Your task to perform on an android device: Do I have any events this weekend? Image 0: 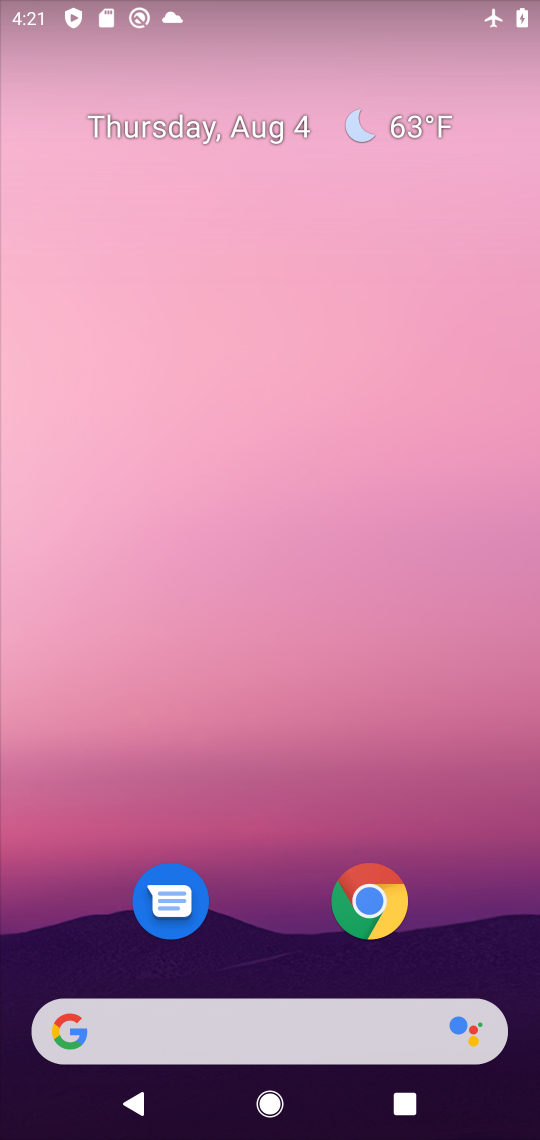
Step 0: drag from (252, 972) to (290, 6)
Your task to perform on an android device: Do I have any events this weekend? Image 1: 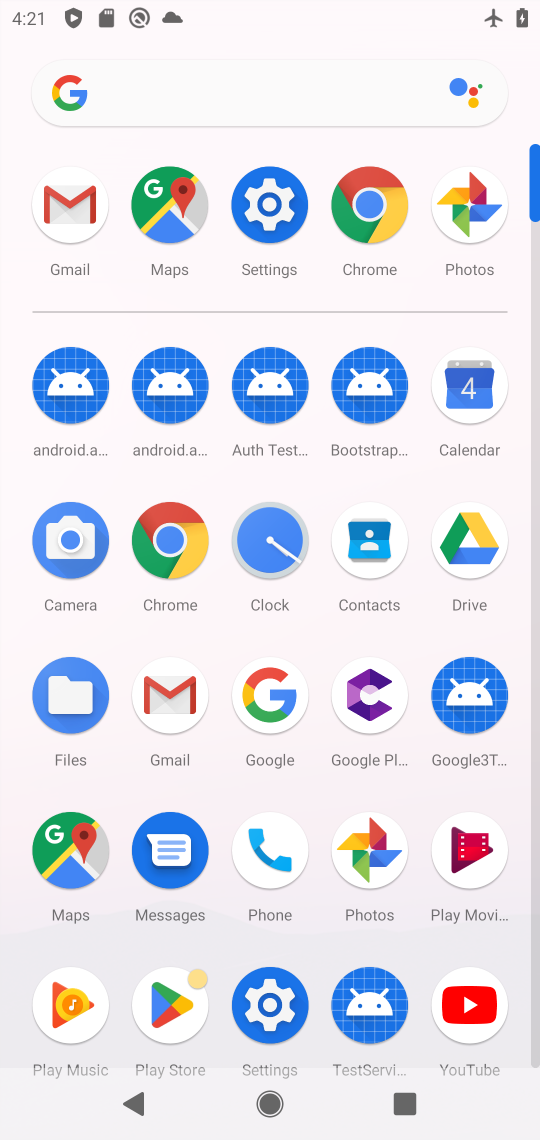
Step 1: click (461, 400)
Your task to perform on an android device: Do I have any events this weekend? Image 2: 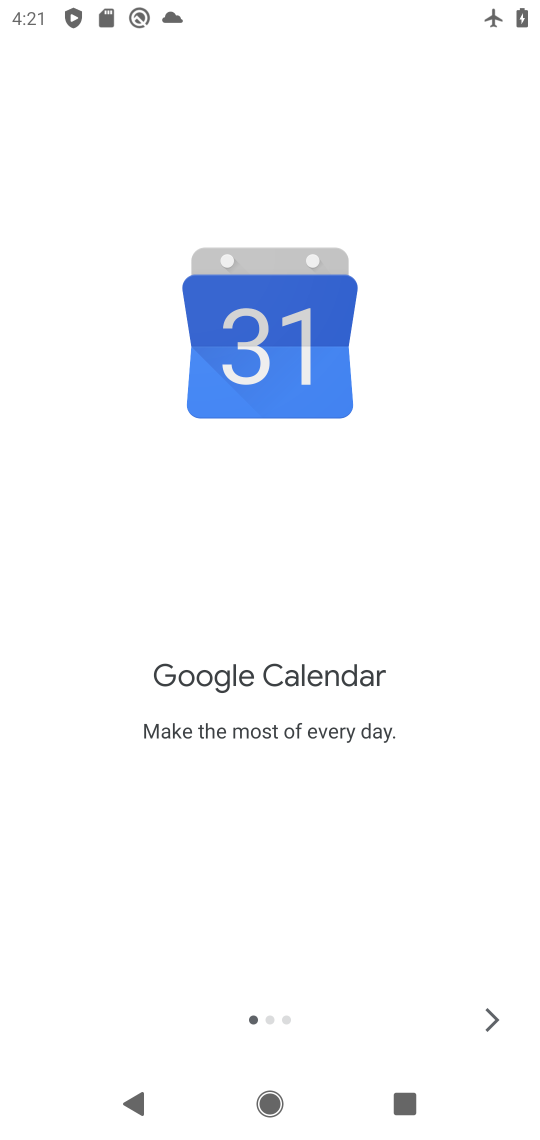
Step 2: click (495, 1017)
Your task to perform on an android device: Do I have any events this weekend? Image 3: 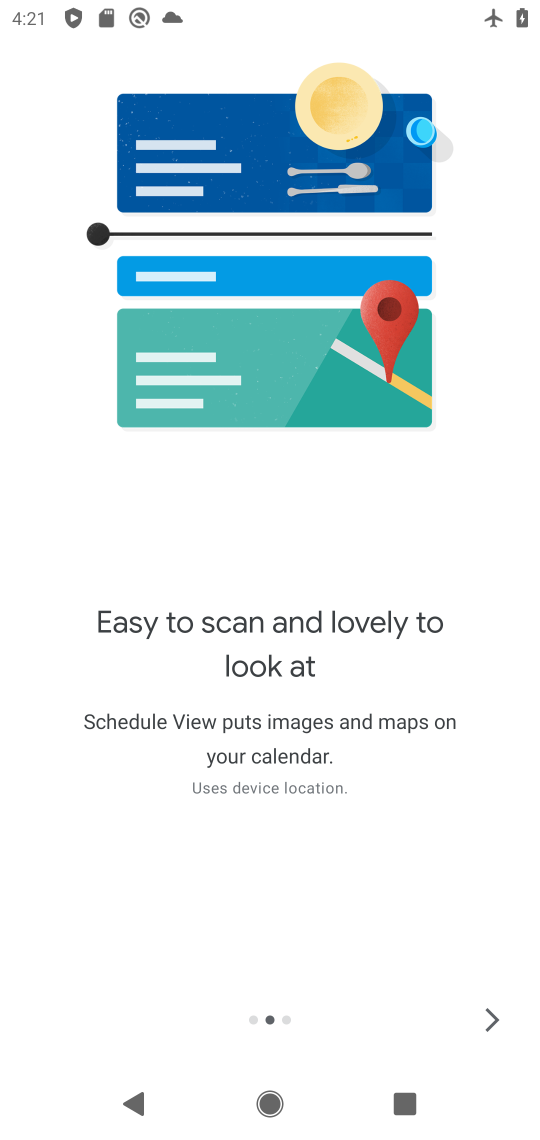
Step 3: click (495, 1017)
Your task to perform on an android device: Do I have any events this weekend? Image 4: 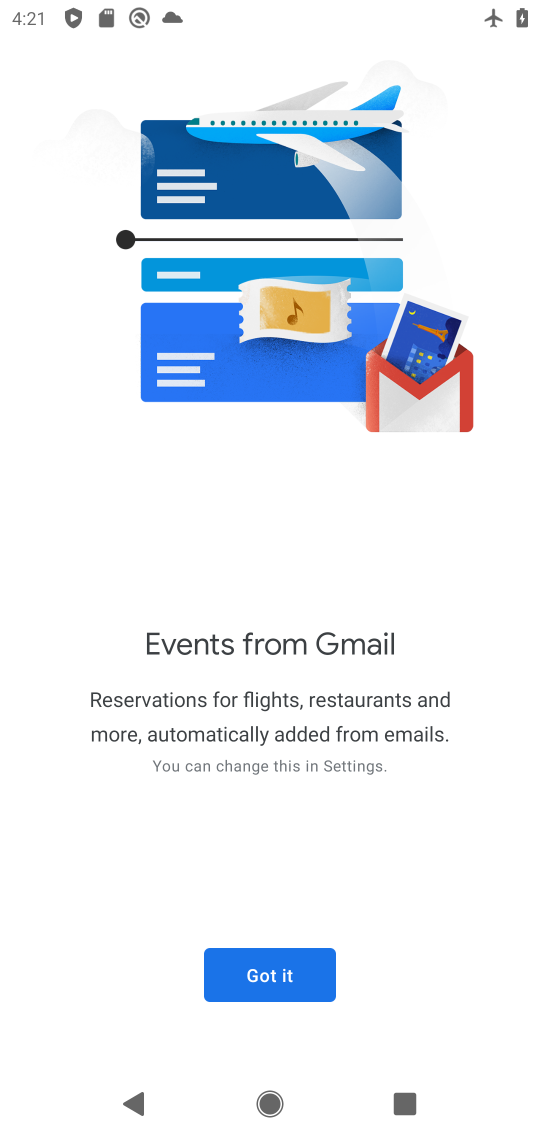
Step 4: click (271, 983)
Your task to perform on an android device: Do I have any events this weekend? Image 5: 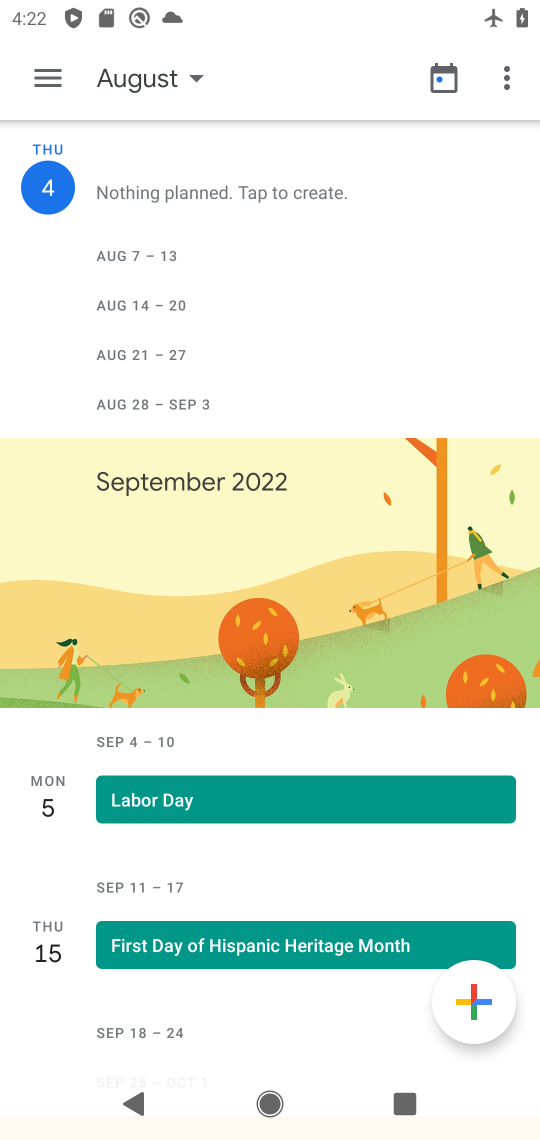
Step 5: click (507, 70)
Your task to perform on an android device: Do I have any events this weekend? Image 6: 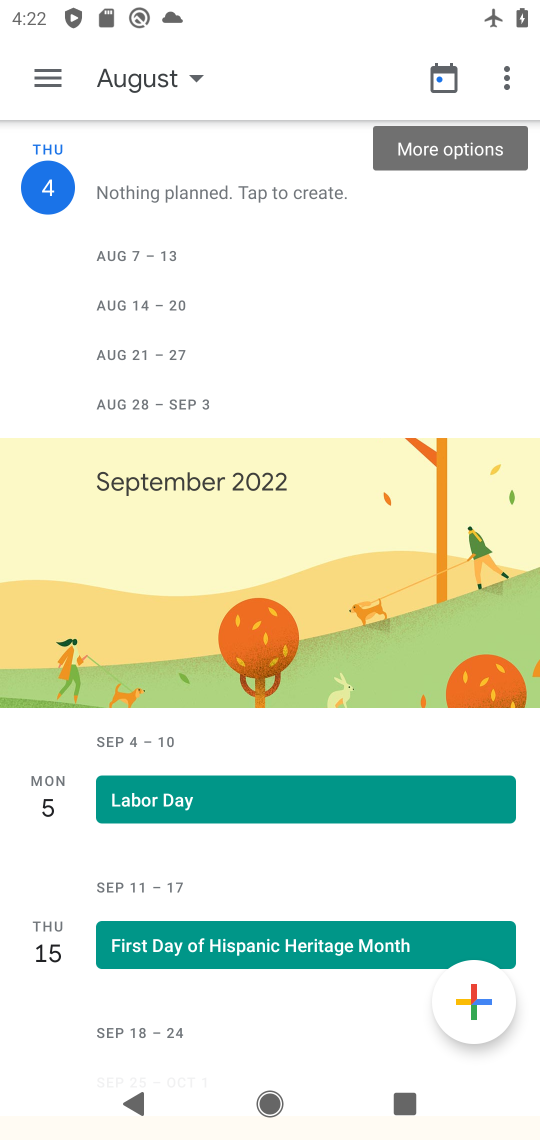
Step 6: click (163, 73)
Your task to perform on an android device: Do I have any events this weekend? Image 7: 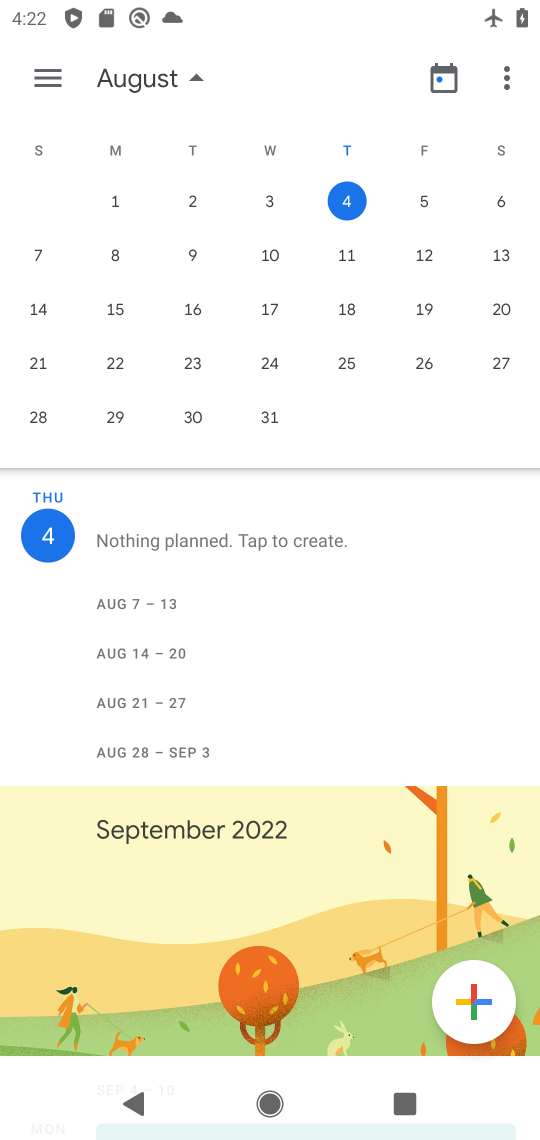
Step 7: click (497, 205)
Your task to perform on an android device: Do I have any events this weekend? Image 8: 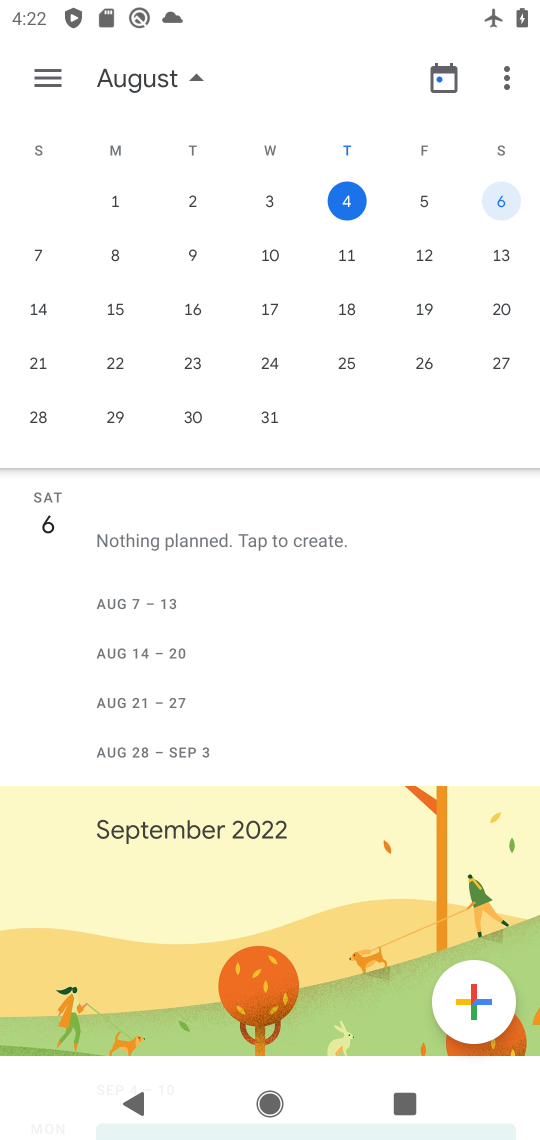
Step 8: click (31, 247)
Your task to perform on an android device: Do I have any events this weekend? Image 9: 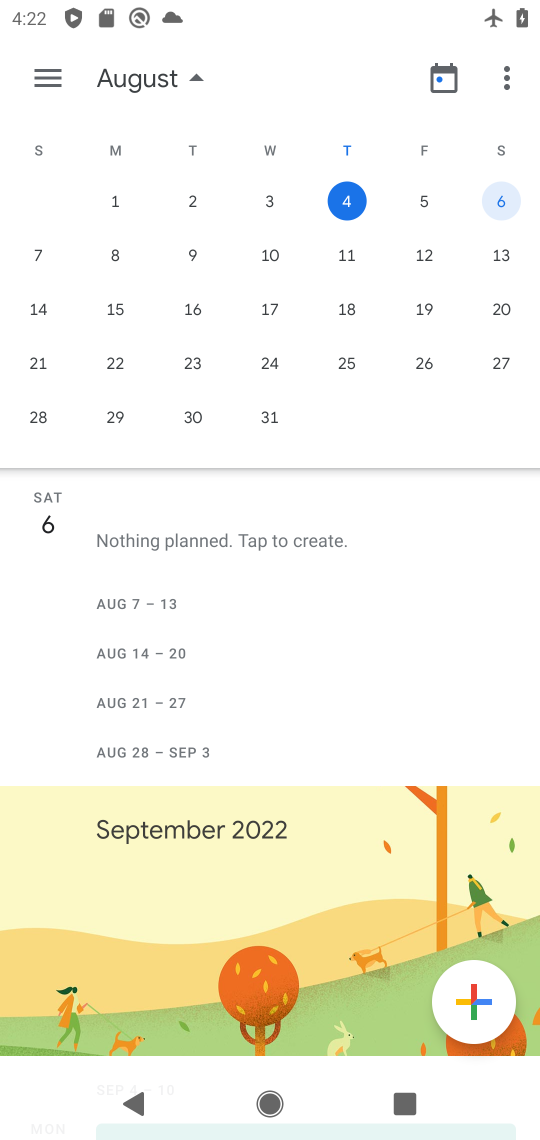
Step 9: task complete